Your task to perform on an android device: change text size in settings app Image 0: 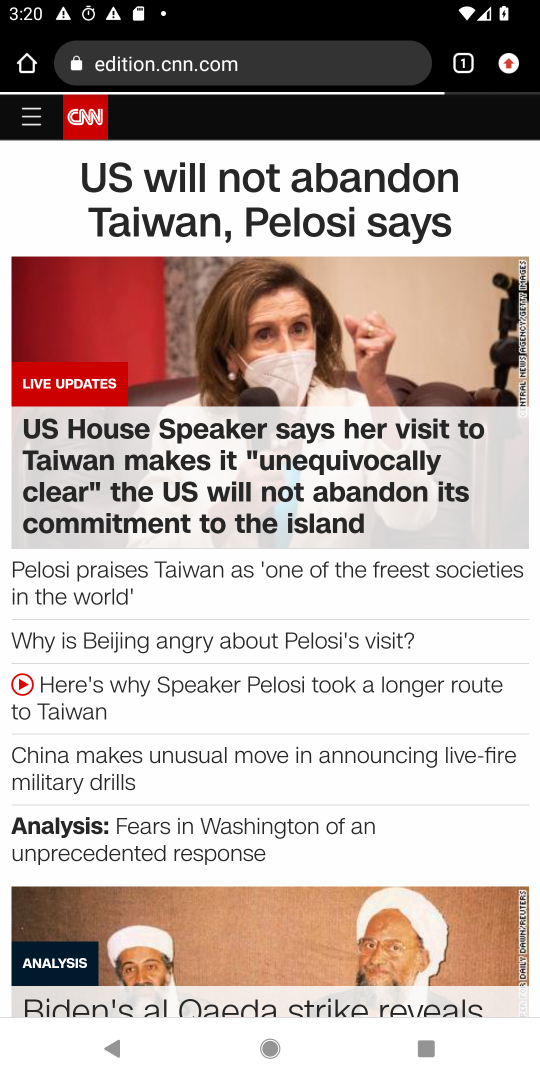
Step 0: press home button
Your task to perform on an android device: change text size in settings app Image 1: 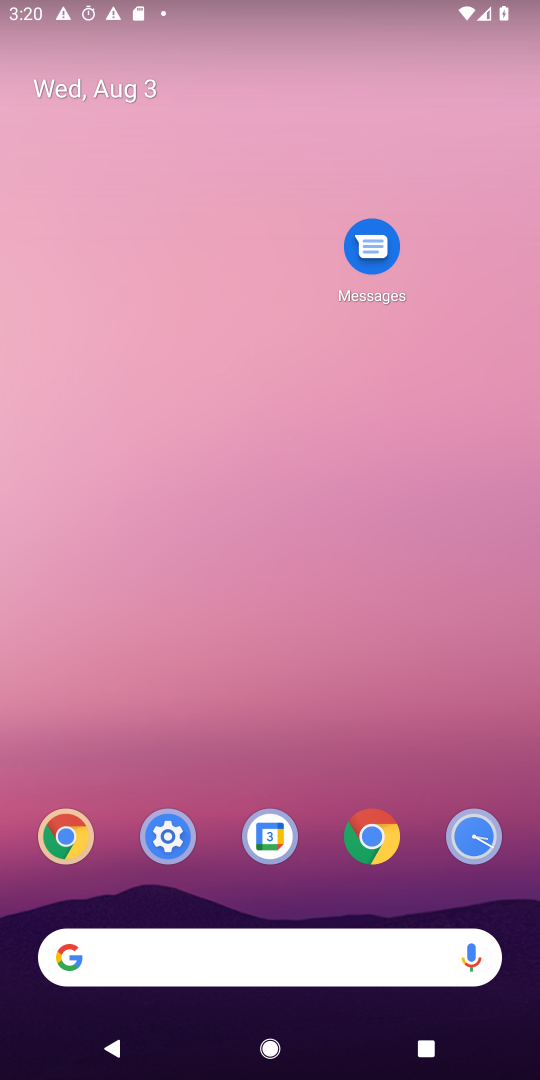
Step 1: click (153, 839)
Your task to perform on an android device: change text size in settings app Image 2: 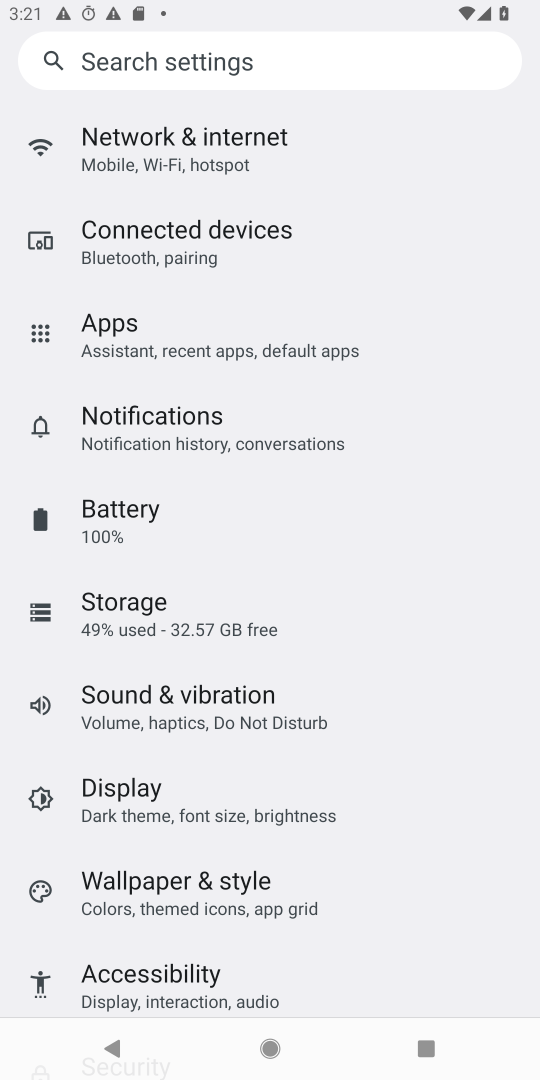
Step 2: click (142, 804)
Your task to perform on an android device: change text size in settings app Image 3: 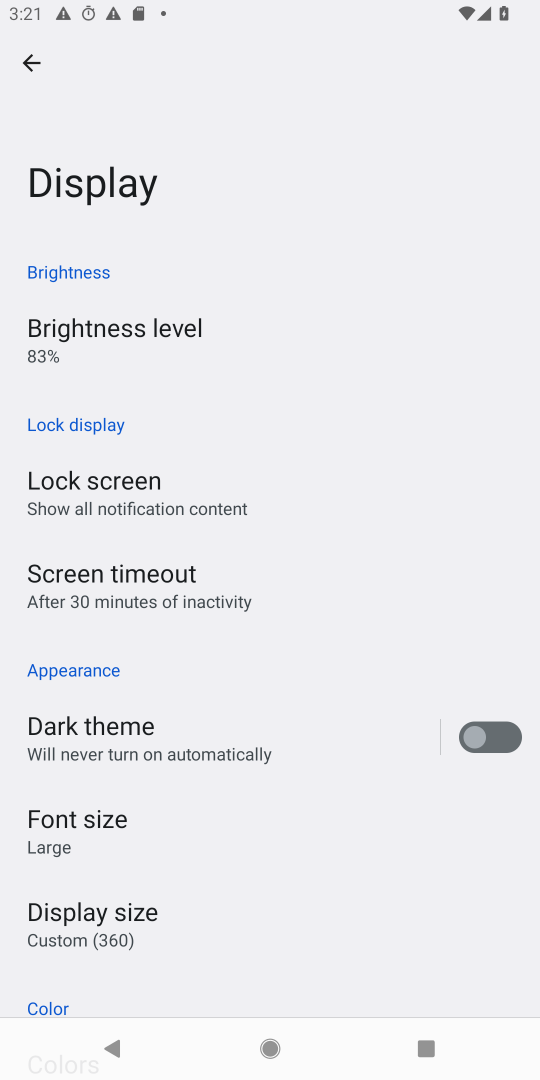
Step 3: click (156, 917)
Your task to perform on an android device: change text size in settings app Image 4: 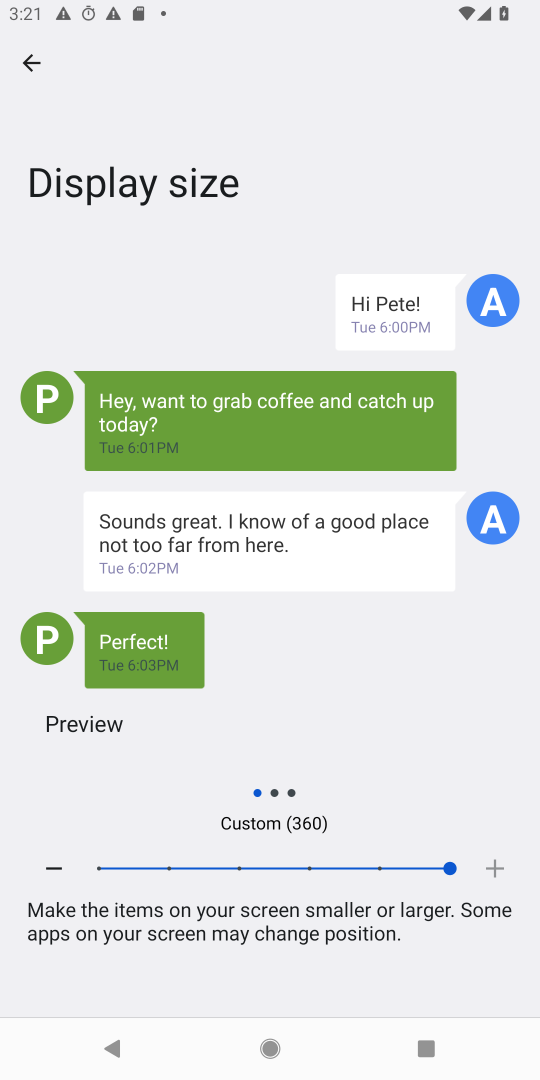
Step 4: click (387, 865)
Your task to perform on an android device: change text size in settings app Image 5: 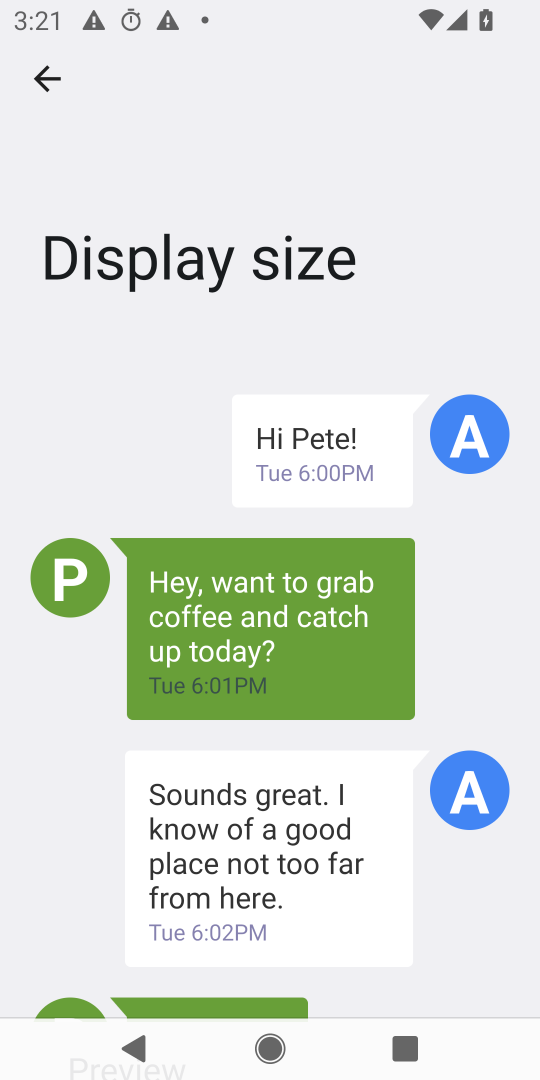
Step 5: task complete